Your task to perform on an android device: Open the calendar app, open the side menu, and click the "Day" option Image 0: 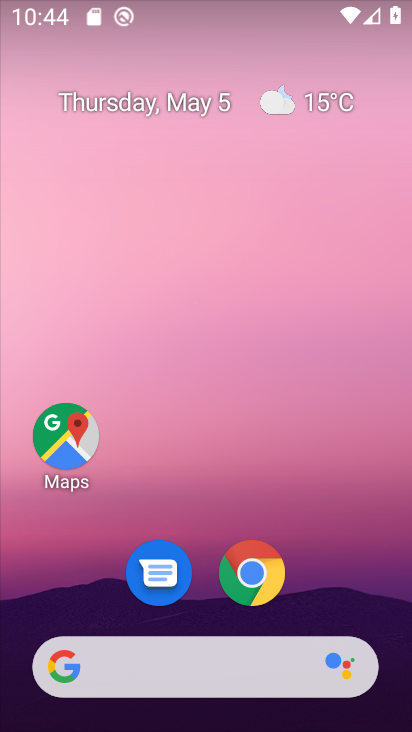
Step 0: drag from (127, 546) to (238, 34)
Your task to perform on an android device: Open the calendar app, open the side menu, and click the "Day" option Image 1: 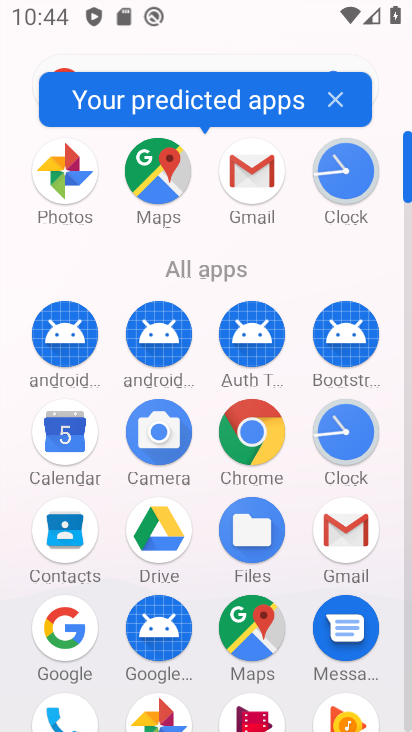
Step 1: click (61, 456)
Your task to perform on an android device: Open the calendar app, open the side menu, and click the "Day" option Image 2: 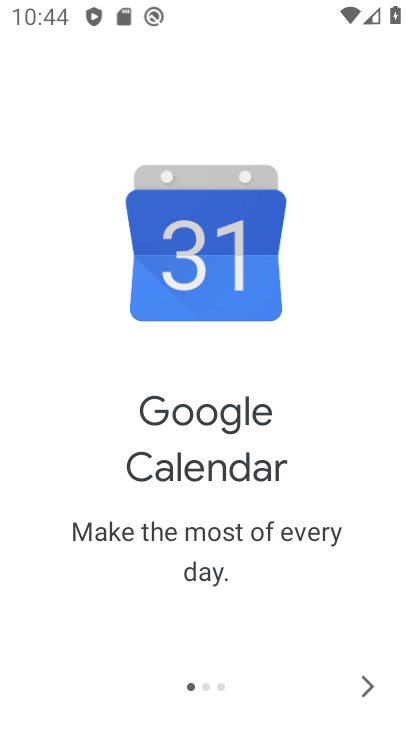
Step 2: click (367, 706)
Your task to perform on an android device: Open the calendar app, open the side menu, and click the "Day" option Image 3: 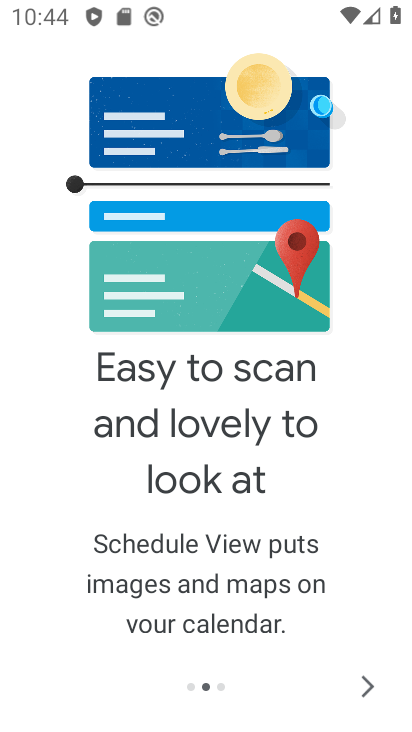
Step 3: click (367, 706)
Your task to perform on an android device: Open the calendar app, open the side menu, and click the "Day" option Image 4: 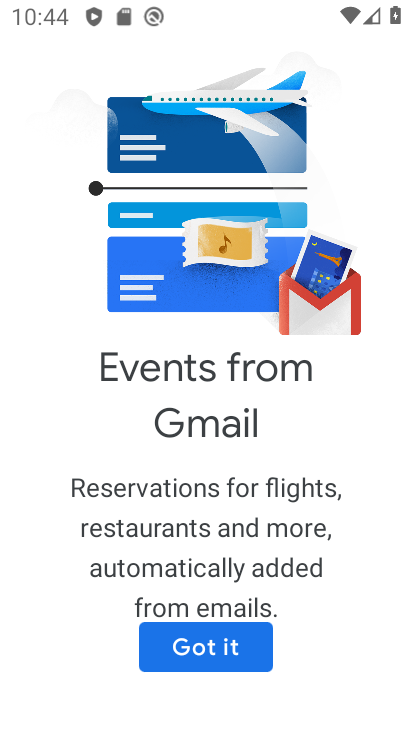
Step 4: click (249, 655)
Your task to perform on an android device: Open the calendar app, open the side menu, and click the "Day" option Image 5: 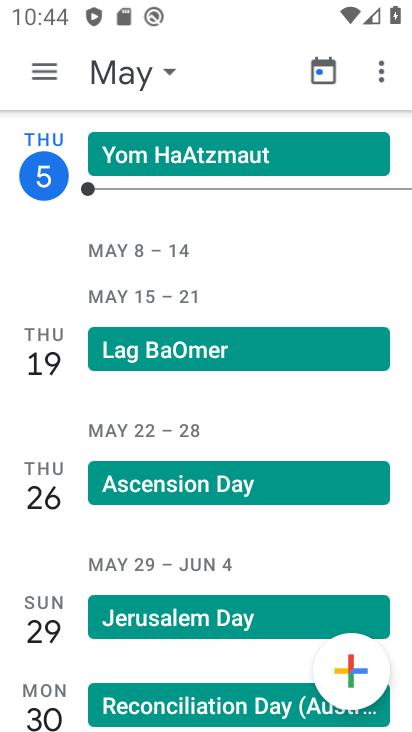
Step 5: click (35, 72)
Your task to perform on an android device: Open the calendar app, open the side menu, and click the "Day" option Image 6: 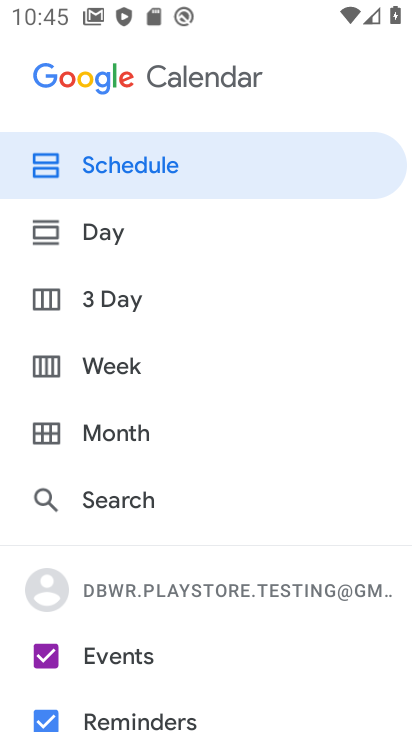
Step 6: click (144, 239)
Your task to perform on an android device: Open the calendar app, open the side menu, and click the "Day" option Image 7: 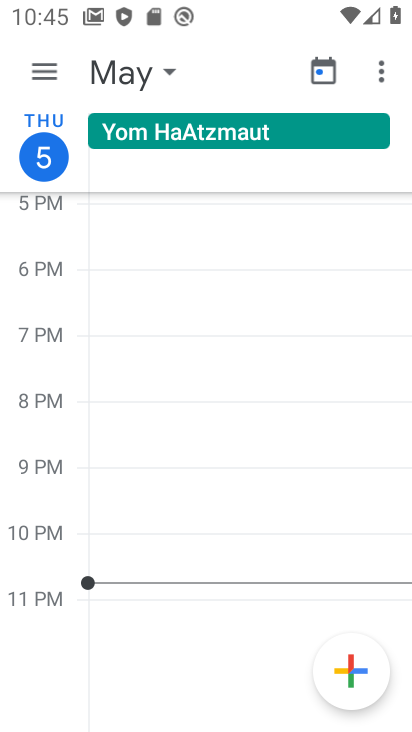
Step 7: task complete